Your task to perform on an android device: turn off notifications settings in the gmail app Image 0: 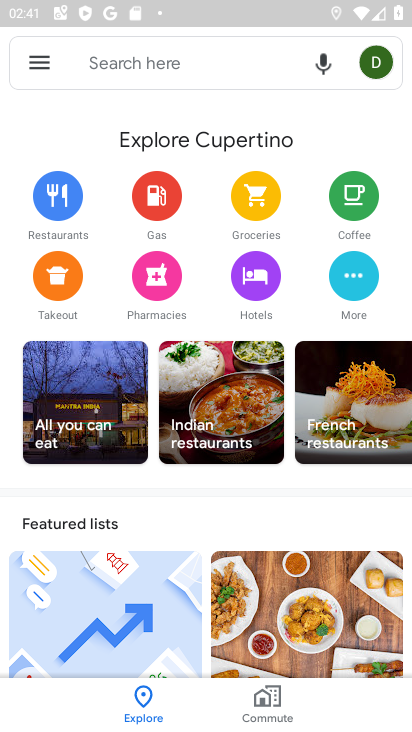
Step 0: press home button
Your task to perform on an android device: turn off notifications settings in the gmail app Image 1: 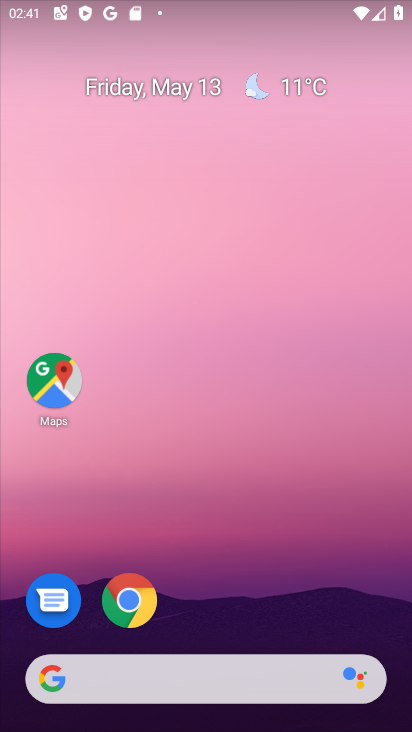
Step 1: drag from (204, 635) to (267, 116)
Your task to perform on an android device: turn off notifications settings in the gmail app Image 2: 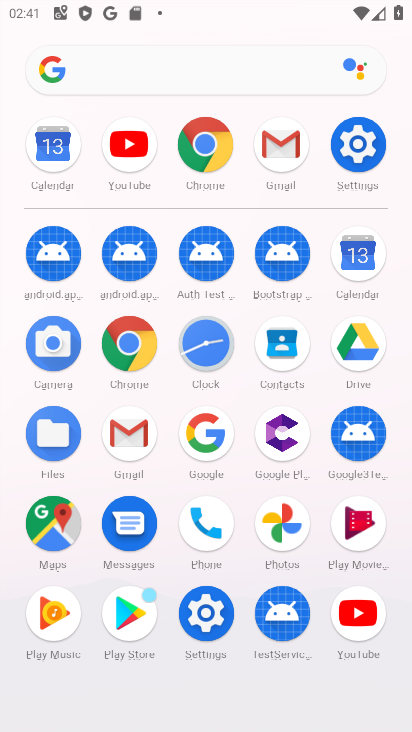
Step 2: click (133, 435)
Your task to perform on an android device: turn off notifications settings in the gmail app Image 3: 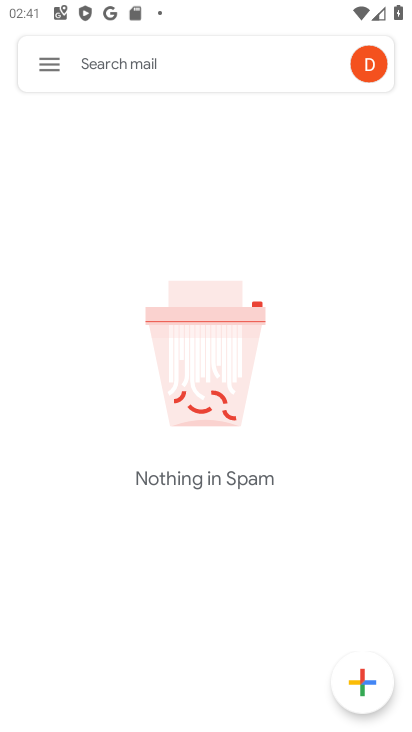
Step 3: click (58, 62)
Your task to perform on an android device: turn off notifications settings in the gmail app Image 4: 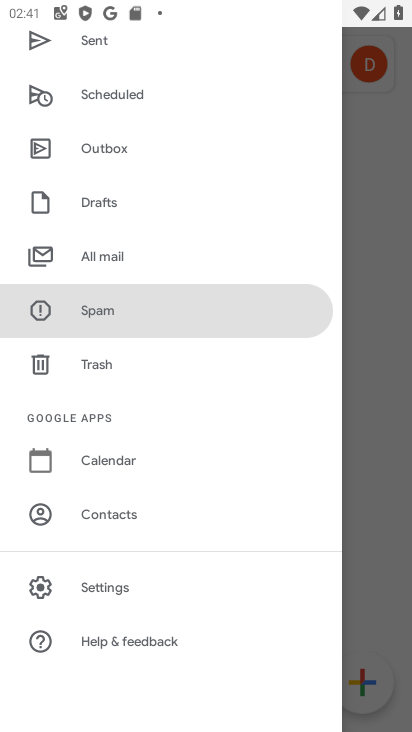
Step 4: click (155, 590)
Your task to perform on an android device: turn off notifications settings in the gmail app Image 5: 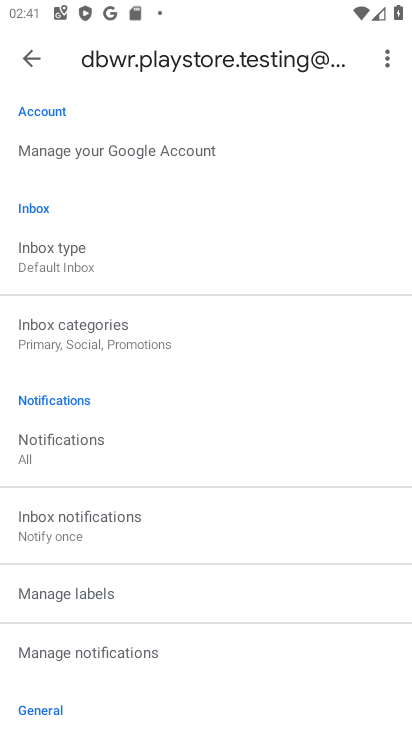
Step 5: click (117, 652)
Your task to perform on an android device: turn off notifications settings in the gmail app Image 6: 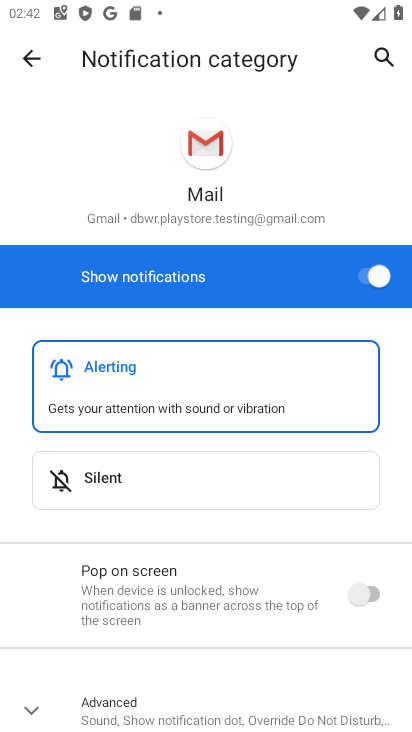
Step 6: click (353, 286)
Your task to perform on an android device: turn off notifications settings in the gmail app Image 7: 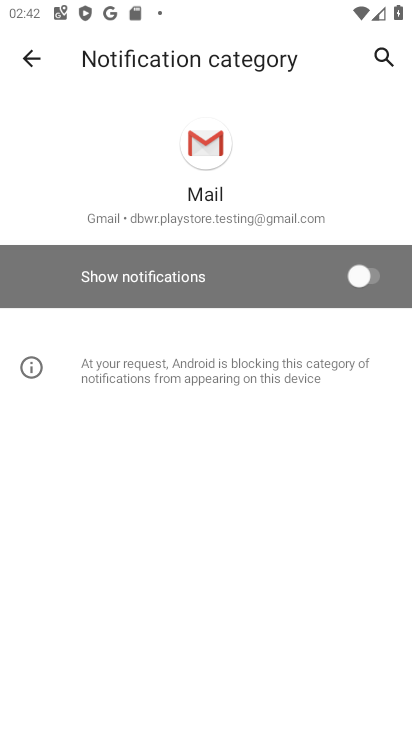
Step 7: task complete